Your task to perform on an android device: star an email in the gmail app Image 0: 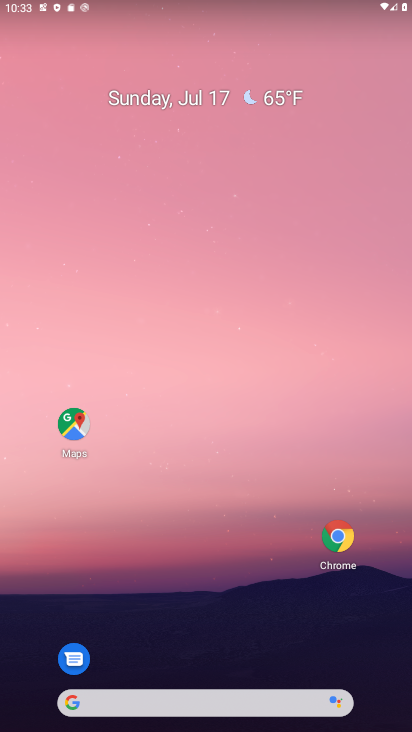
Step 0: drag from (191, 708) to (198, 131)
Your task to perform on an android device: star an email in the gmail app Image 1: 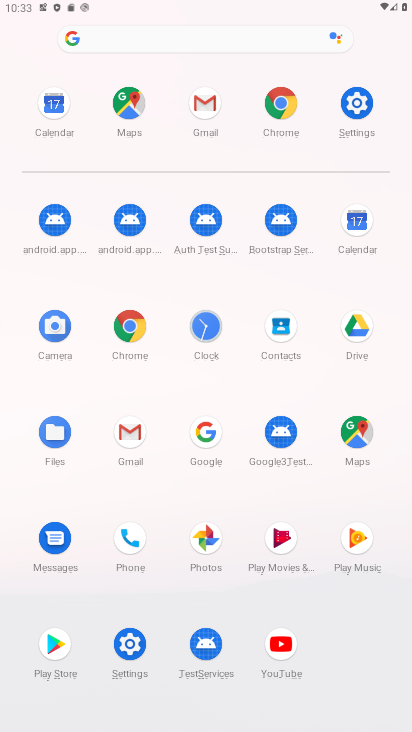
Step 1: click (147, 419)
Your task to perform on an android device: star an email in the gmail app Image 2: 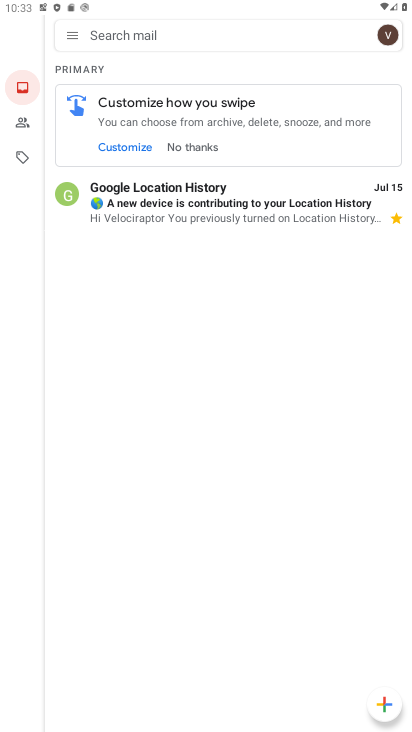
Step 2: task complete